Your task to perform on an android device: empty trash in the gmail app Image 0: 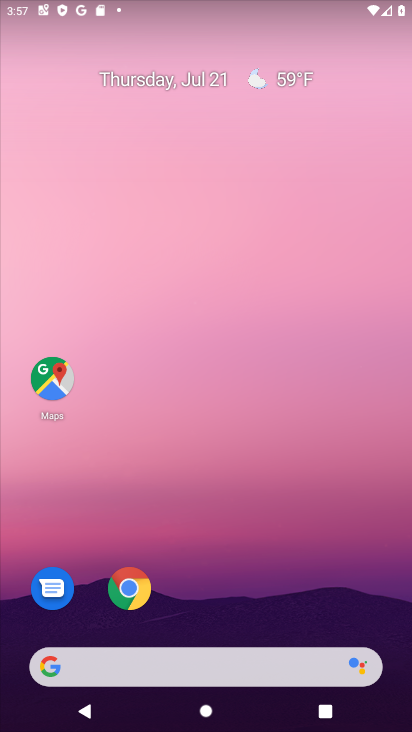
Step 0: drag from (233, 705) to (228, 135)
Your task to perform on an android device: empty trash in the gmail app Image 1: 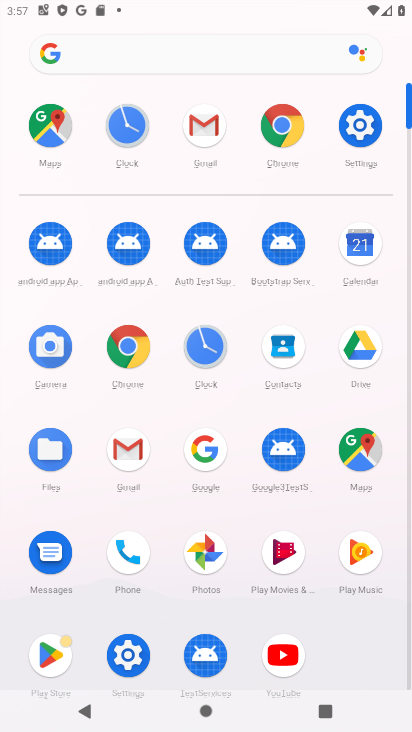
Step 1: click (133, 446)
Your task to perform on an android device: empty trash in the gmail app Image 2: 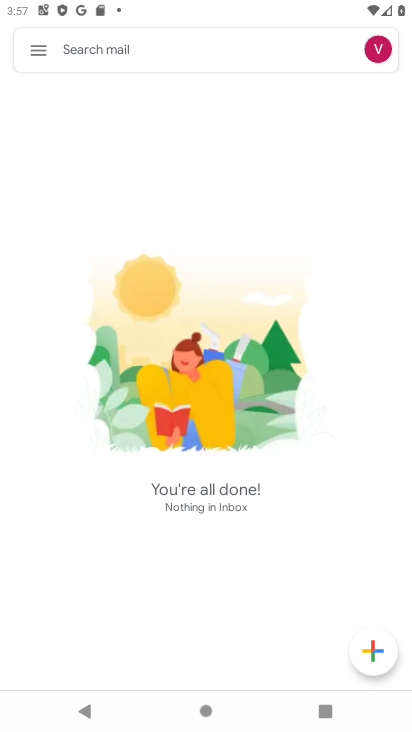
Step 2: click (38, 50)
Your task to perform on an android device: empty trash in the gmail app Image 3: 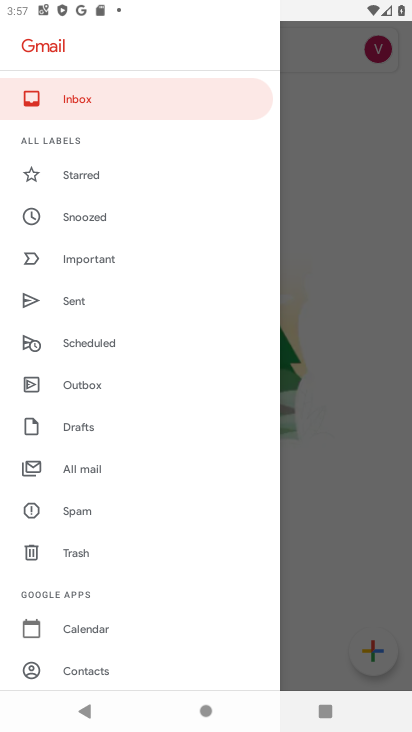
Step 3: click (66, 552)
Your task to perform on an android device: empty trash in the gmail app Image 4: 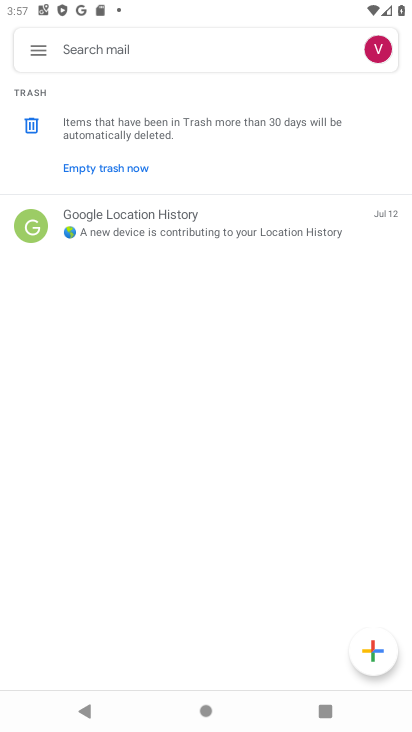
Step 4: click (115, 168)
Your task to perform on an android device: empty trash in the gmail app Image 5: 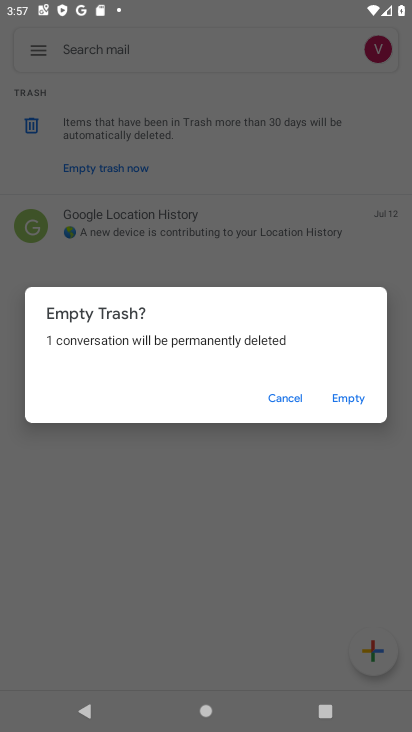
Step 5: click (347, 398)
Your task to perform on an android device: empty trash in the gmail app Image 6: 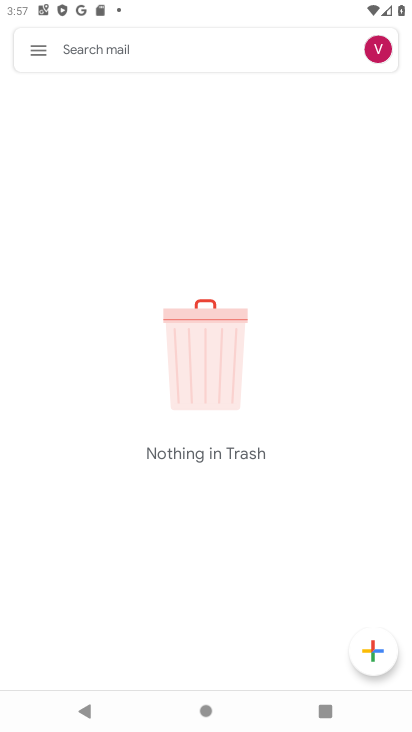
Step 6: task complete